Your task to perform on an android device: Open Google Maps Image 0: 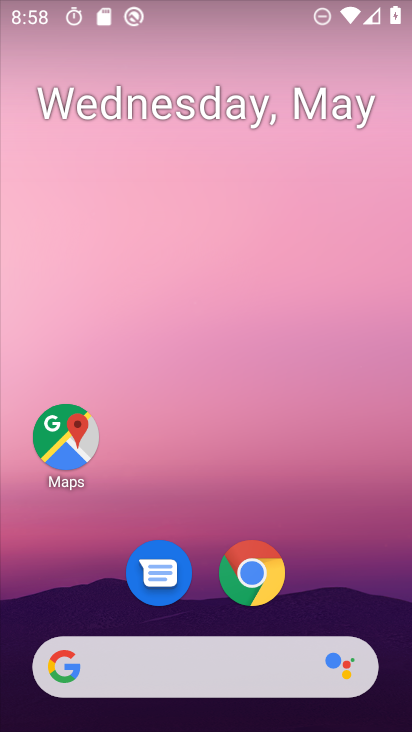
Step 0: click (48, 422)
Your task to perform on an android device: Open Google Maps Image 1: 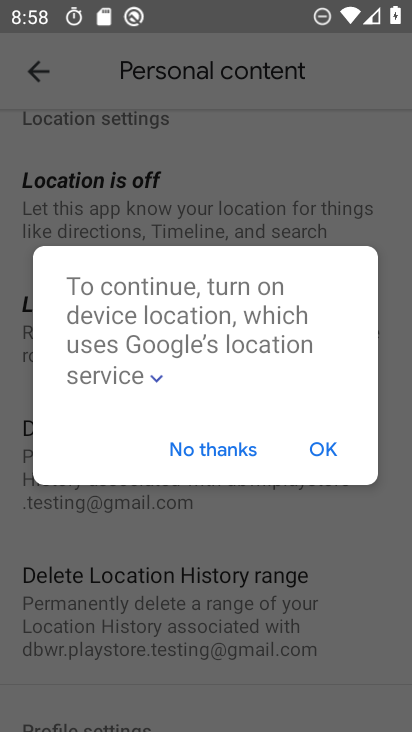
Step 1: click (327, 450)
Your task to perform on an android device: Open Google Maps Image 2: 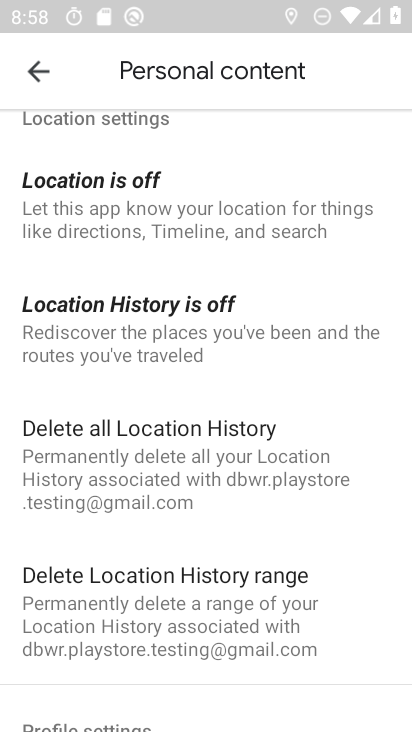
Step 2: drag from (334, 669) to (324, 400)
Your task to perform on an android device: Open Google Maps Image 3: 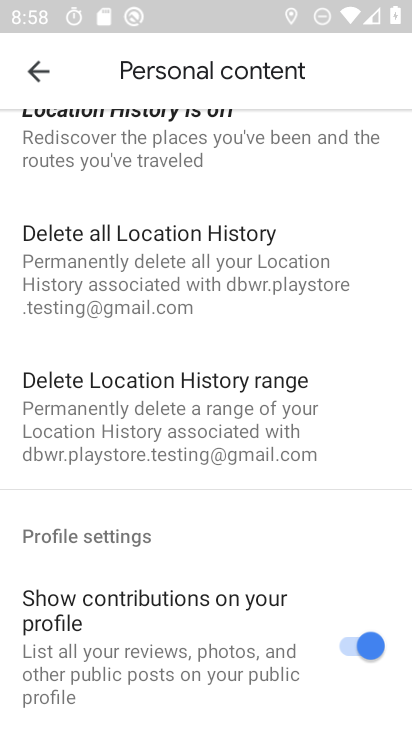
Step 3: click (37, 64)
Your task to perform on an android device: Open Google Maps Image 4: 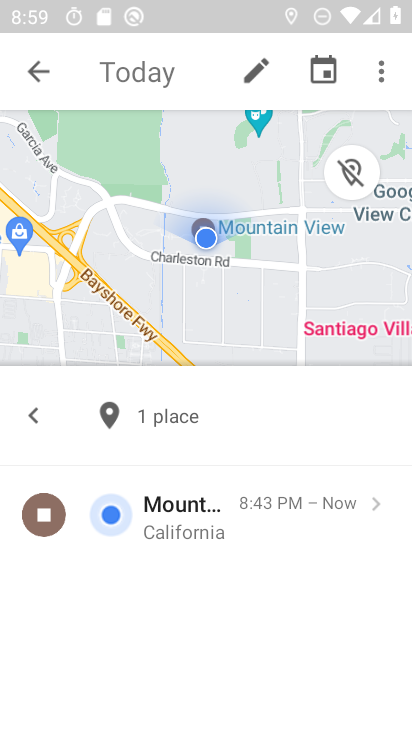
Step 4: task complete